Your task to perform on an android device: Open the Play Movies app and select the watchlist tab. Image 0: 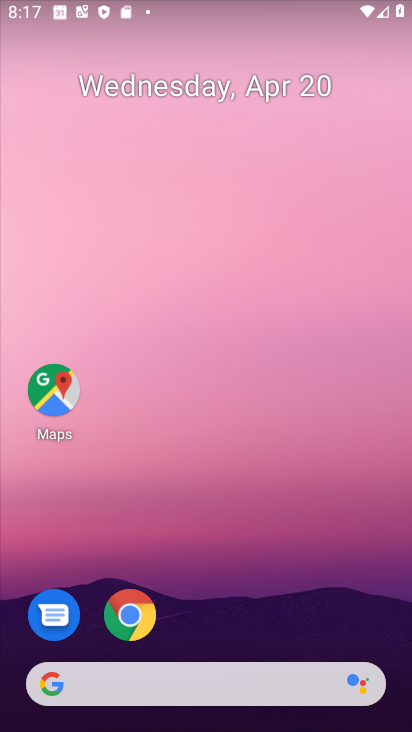
Step 0: drag from (263, 580) to (316, 17)
Your task to perform on an android device: Open the Play Movies app and select the watchlist tab. Image 1: 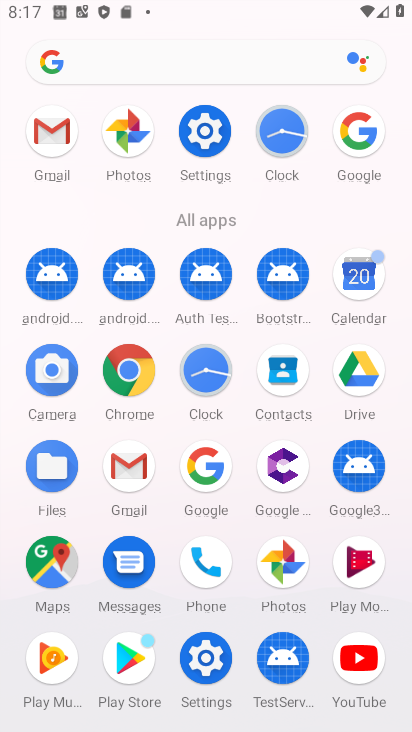
Step 1: click (359, 563)
Your task to perform on an android device: Open the Play Movies app and select the watchlist tab. Image 2: 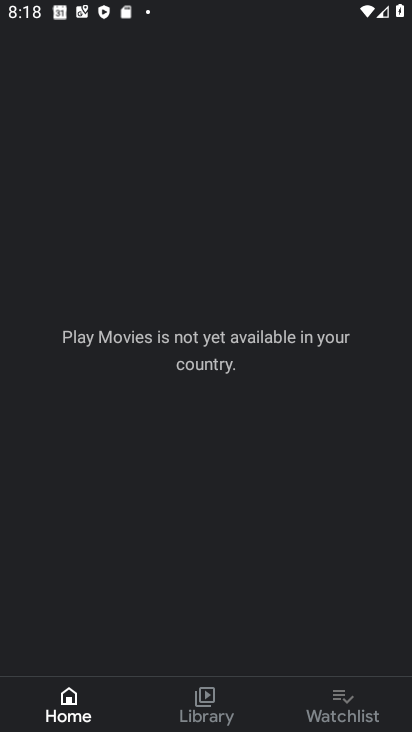
Step 2: click (340, 699)
Your task to perform on an android device: Open the Play Movies app and select the watchlist tab. Image 3: 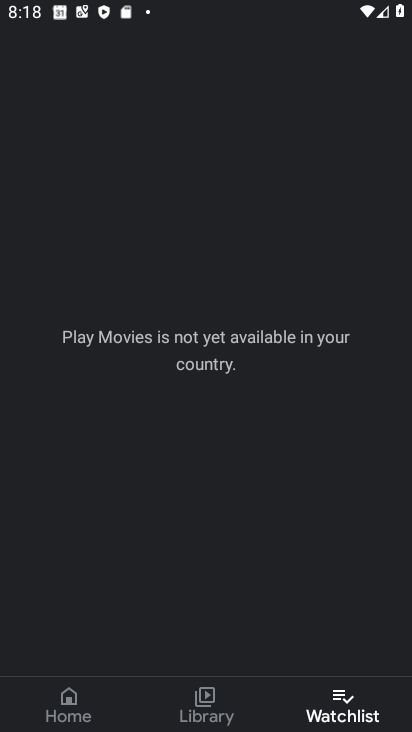
Step 3: task complete